Your task to perform on an android device: turn on the 12-hour format for clock Image 0: 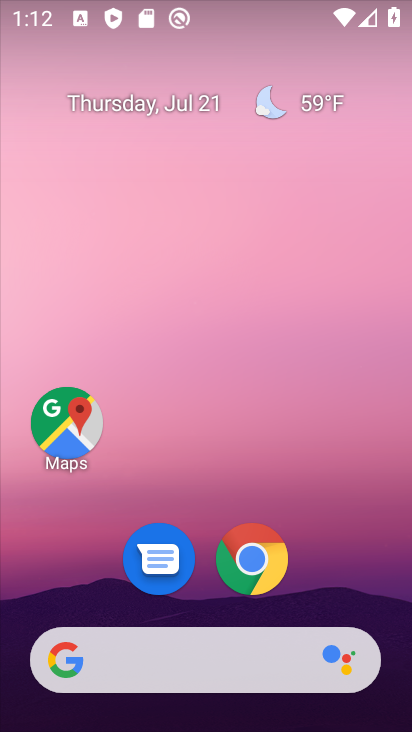
Step 0: drag from (234, 601) to (366, 159)
Your task to perform on an android device: turn on the 12-hour format for clock Image 1: 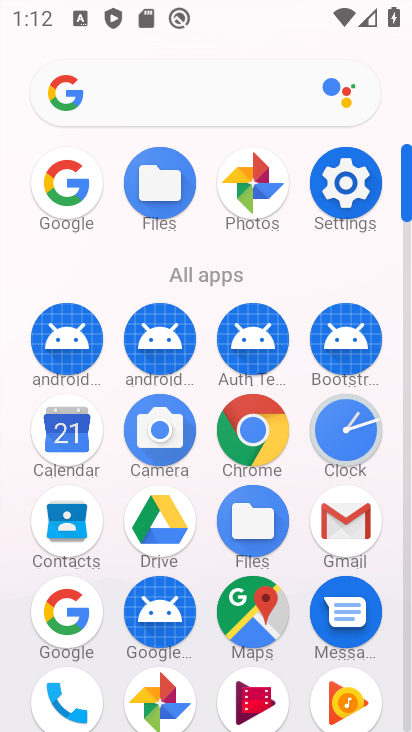
Step 1: click (373, 442)
Your task to perform on an android device: turn on the 12-hour format for clock Image 2: 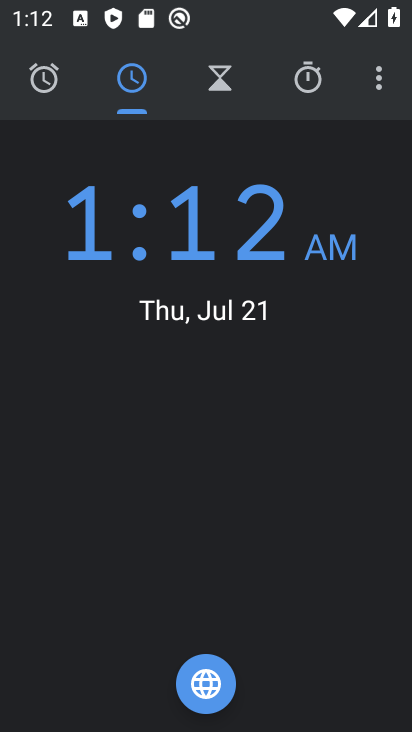
Step 2: click (393, 77)
Your task to perform on an android device: turn on the 12-hour format for clock Image 3: 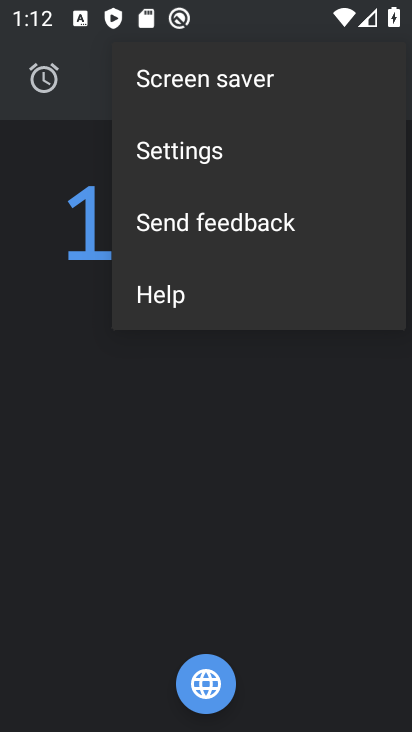
Step 3: click (178, 167)
Your task to perform on an android device: turn on the 12-hour format for clock Image 4: 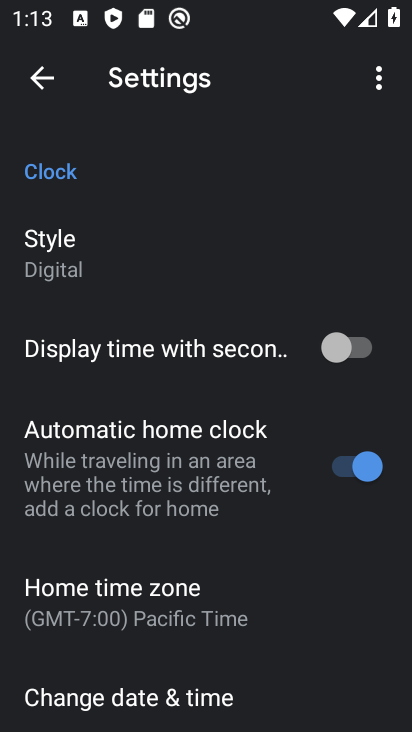
Step 4: drag from (190, 504) to (257, 296)
Your task to perform on an android device: turn on the 12-hour format for clock Image 5: 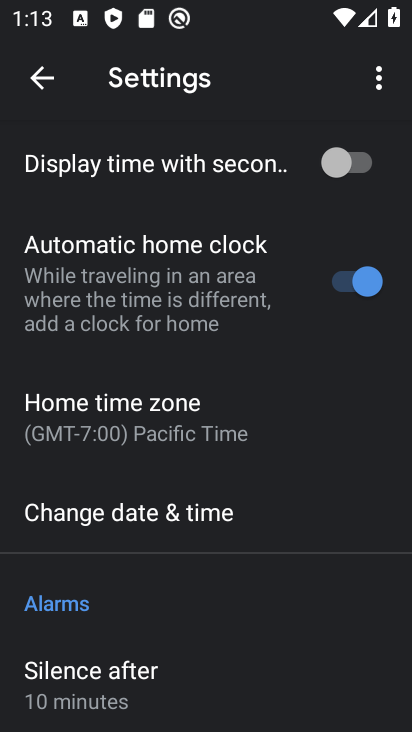
Step 5: click (219, 521)
Your task to perform on an android device: turn on the 12-hour format for clock Image 6: 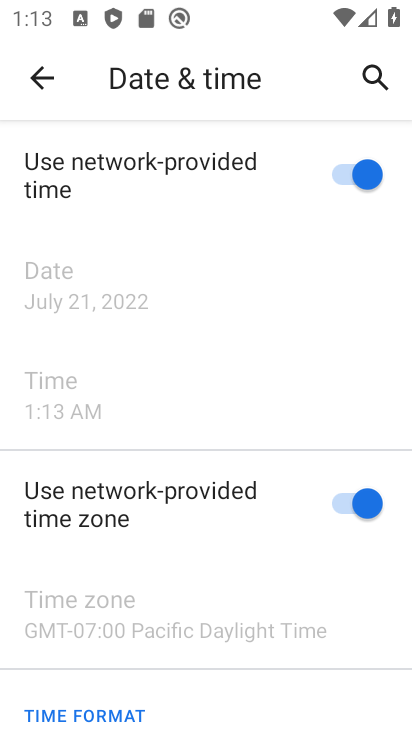
Step 6: task complete